Your task to perform on an android device: turn off location Image 0: 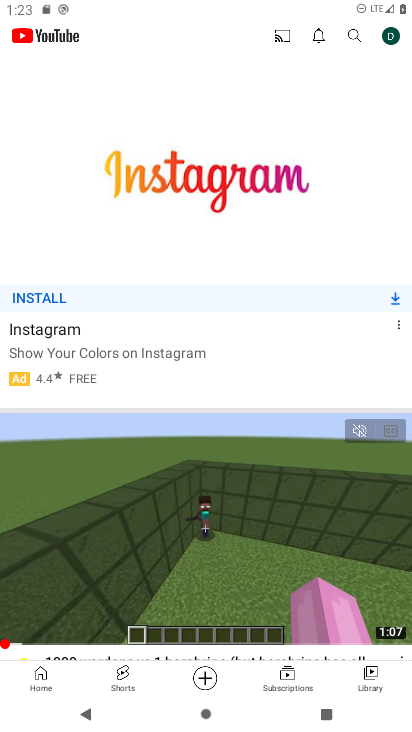
Step 0: press home button
Your task to perform on an android device: turn off location Image 1: 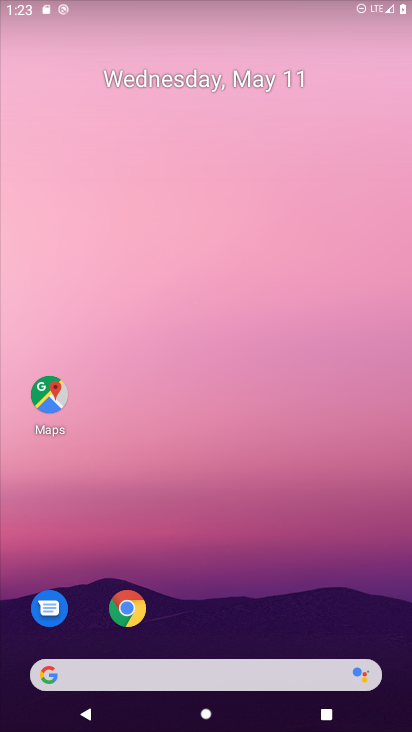
Step 1: drag from (231, 532) to (185, 36)
Your task to perform on an android device: turn off location Image 2: 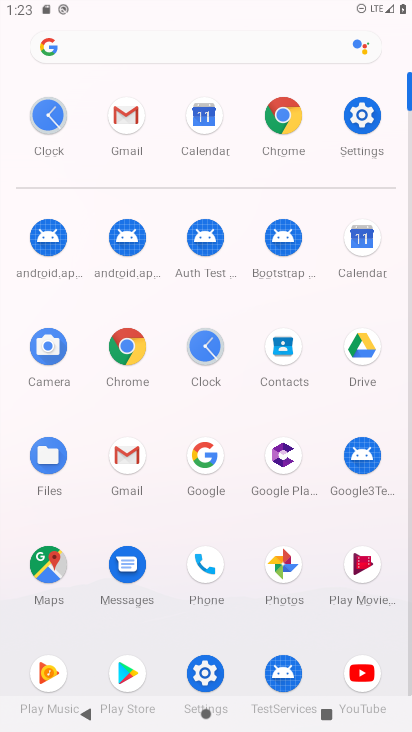
Step 2: click (359, 120)
Your task to perform on an android device: turn off location Image 3: 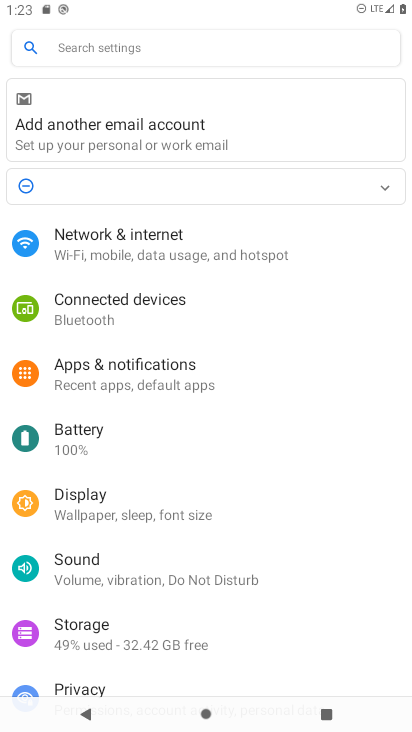
Step 3: drag from (152, 593) to (208, 229)
Your task to perform on an android device: turn off location Image 4: 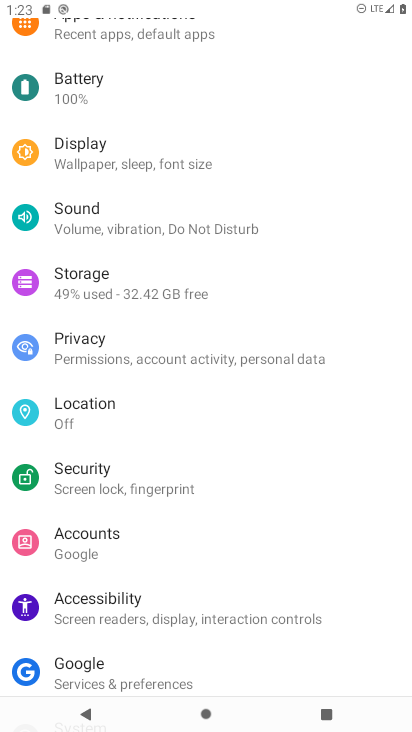
Step 4: click (146, 426)
Your task to perform on an android device: turn off location Image 5: 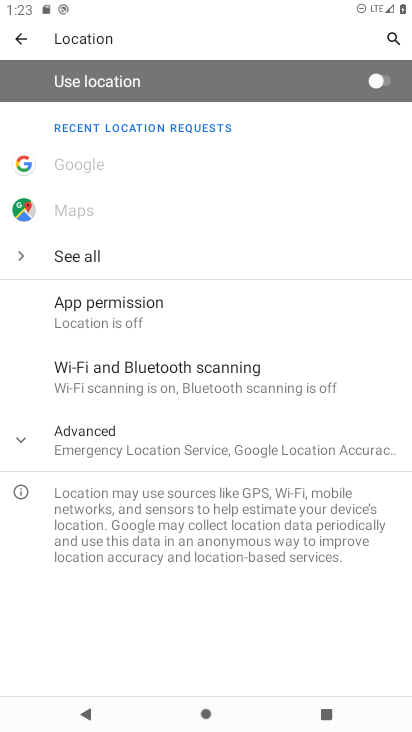
Step 5: task complete